Your task to perform on an android device: Check the news Image 0: 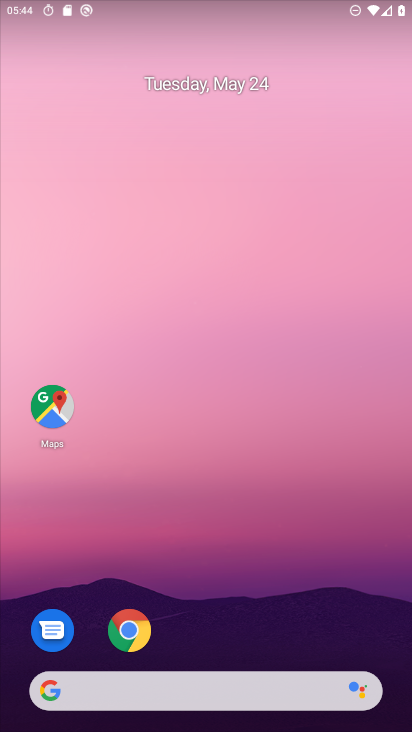
Step 0: click (146, 680)
Your task to perform on an android device: Check the news Image 1: 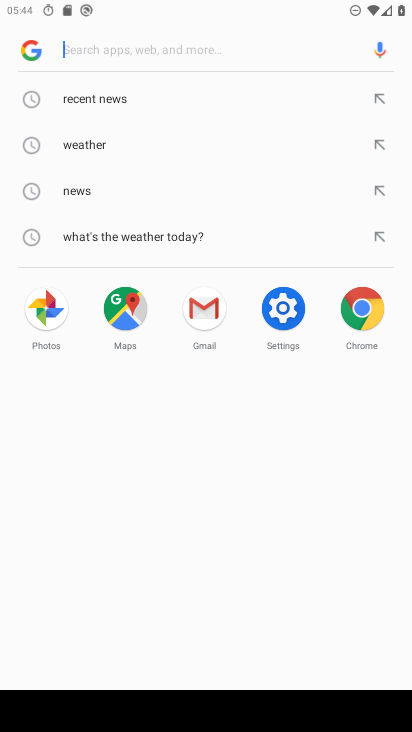
Step 1: click (206, 190)
Your task to perform on an android device: Check the news Image 2: 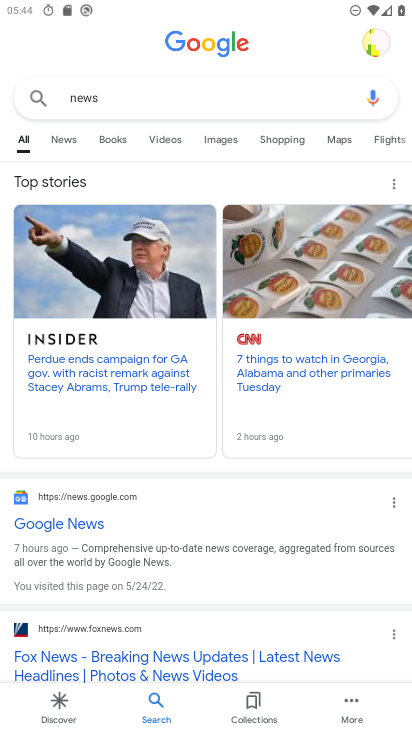
Step 2: task complete